Your task to perform on an android device: check data usage Image 0: 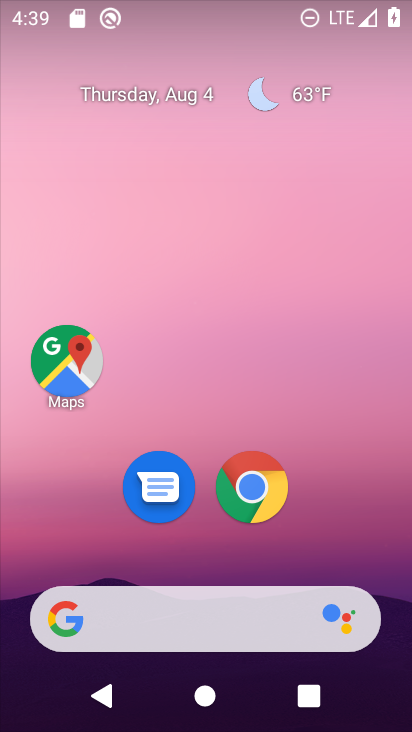
Step 0: drag from (211, 551) to (261, 83)
Your task to perform on an android device: check data usage Image 1: 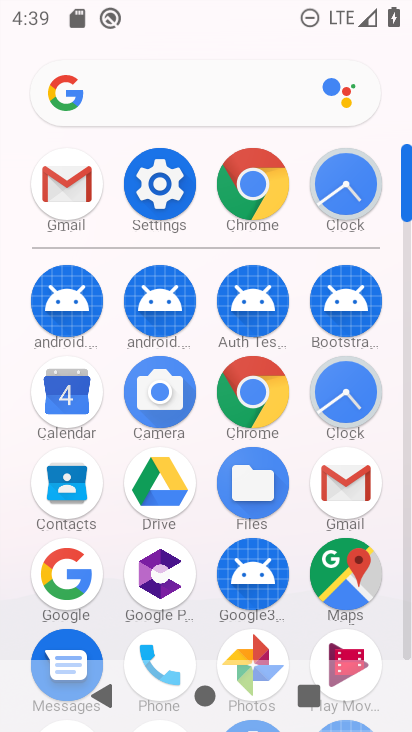
Step 1: click (148, 172)
Your task to perform on an android device: check data usage Image 2: 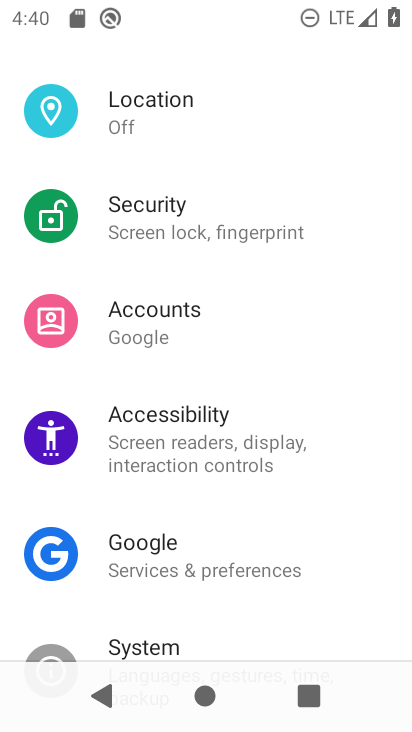
Step 2: drag from (234, 134) to (277, 716)
Your task to perform on an android device: check data usage Image 3: 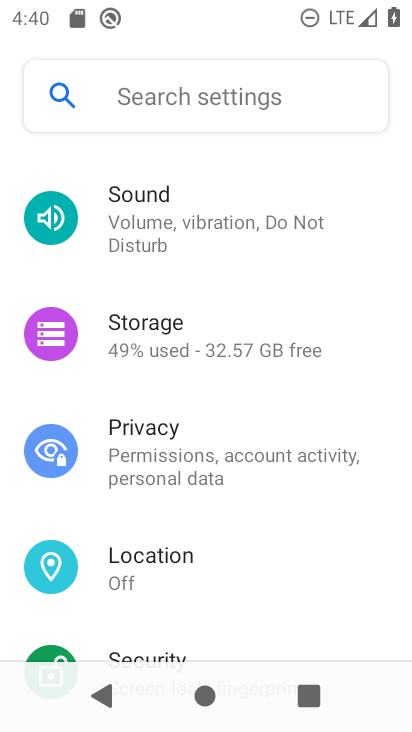
Step 3: drag from (216, 212) to (225, 723)
Your task to perform on an android device: check data usage Image 4: 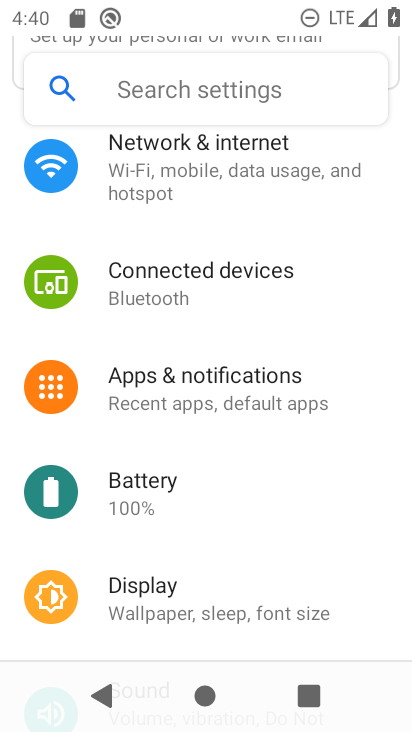
Step 4: click (172, 194)
Your task to perform on an android device: check data usage Image 5: 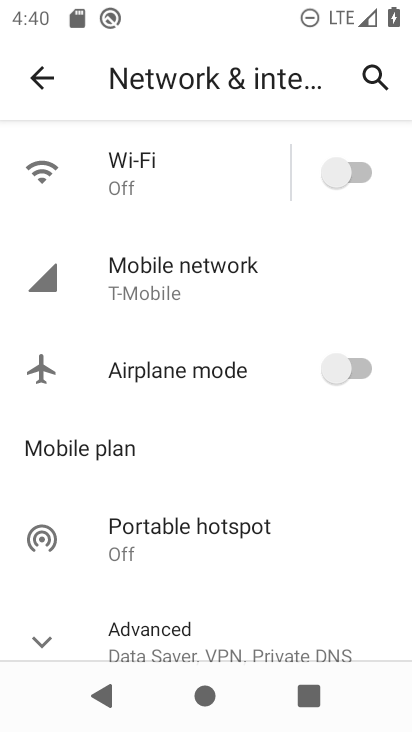
Step 5: click (195, 270)
Your task to perform on an android device: check data usage Image 6: 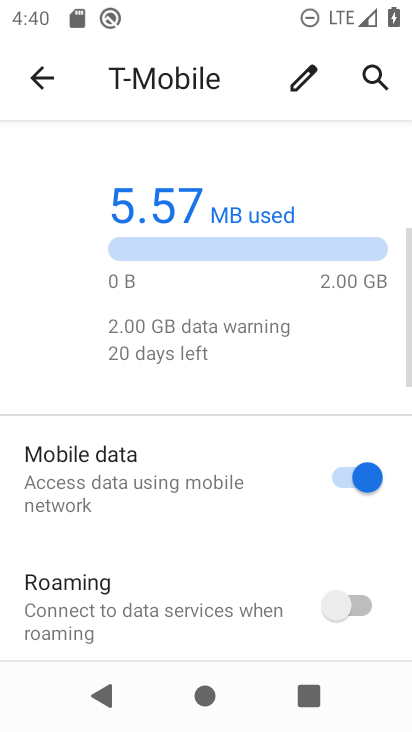
Step 6: drag from (129, 607) to (221, 144)
Your task to perform on an android device: check data usage Image 7: 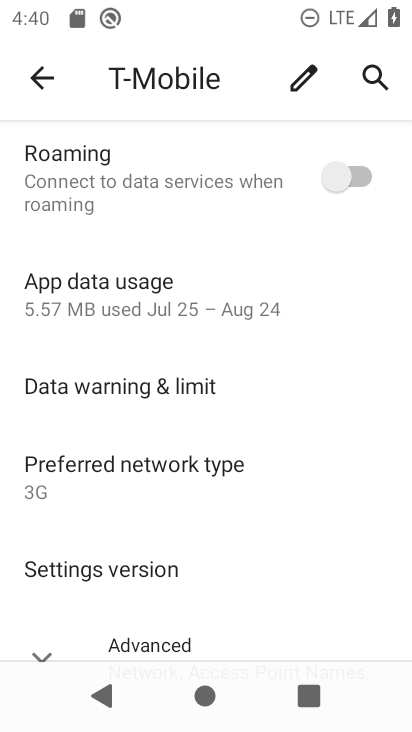
Step 7: click (123, 287)
Your task to perform on an android device: check data usage Image 8: 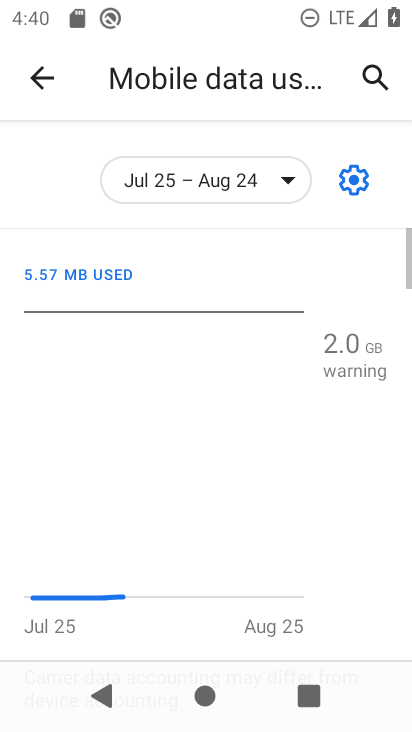
Step 8: task complete